Your task to perform on an android device: Go to privacy settings Image 0: 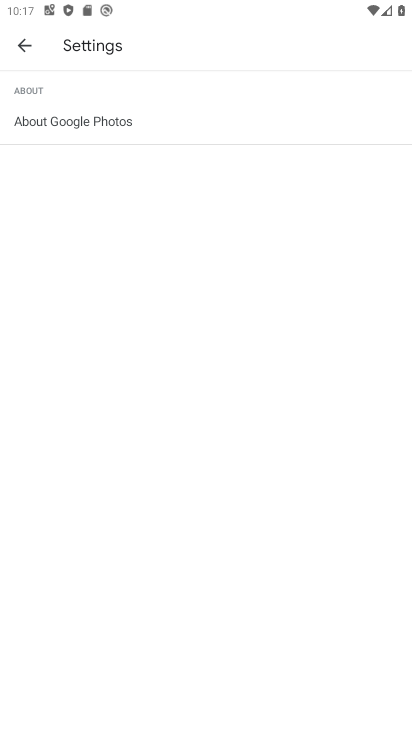
Step 0: press home button
Your task to perform on an android device: Go to privacy settings Image 1: 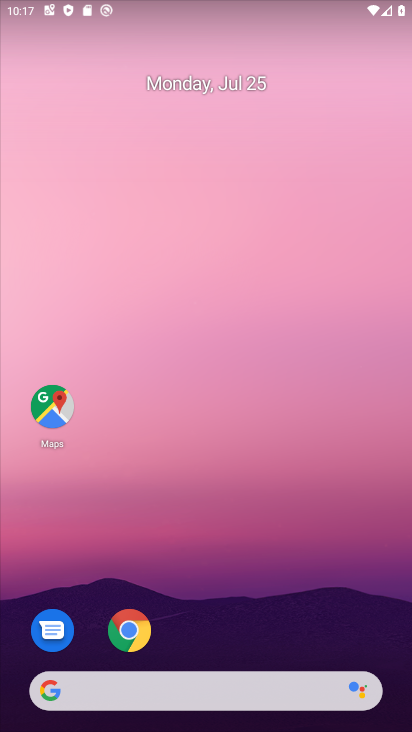
Step 1: drag from (353, 620) to (345, 104)
Your task to perform on an android device: Go to privacy settings Image 2: 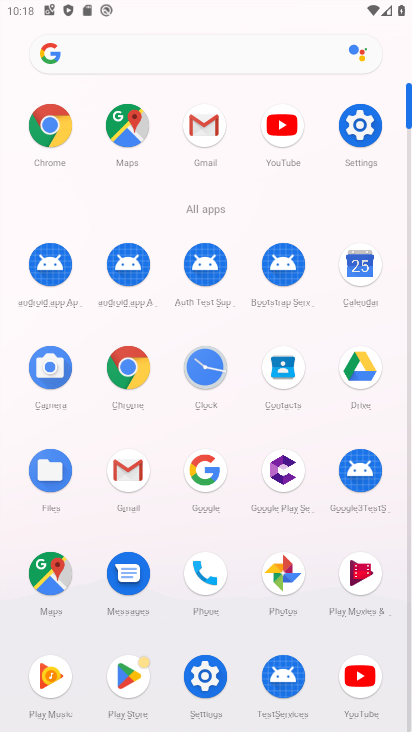
Step 2: click (366, 143)
Your task to perform on an android device: Go to privacy settings Image 3: 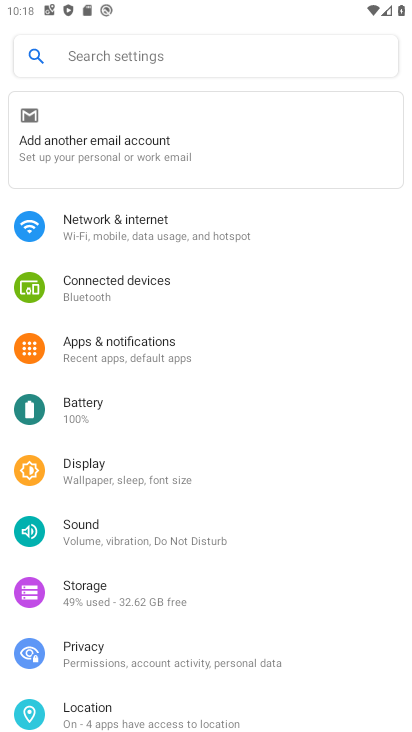
Step 3: drag from (335, 589) to (311, 356)
Your task to perform on an android device: Go to privacy settings Image 4: 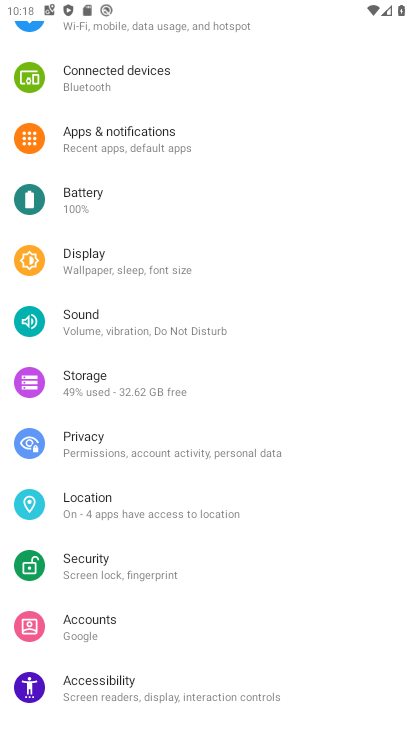
Step 4: drag from (301, 570) to (306, 462)
Your task to perform on an android device: Go to privacy settings Image 5: 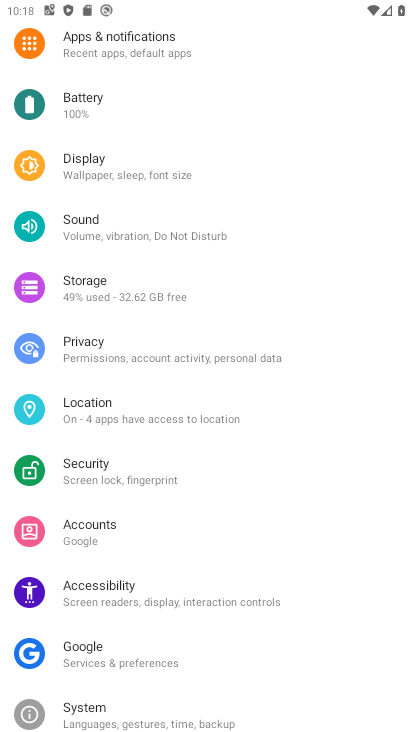
Step 5: drag from (349, 531) to (339, 381)
Your task to perform on an android device: Go to privacy settings Image 6: 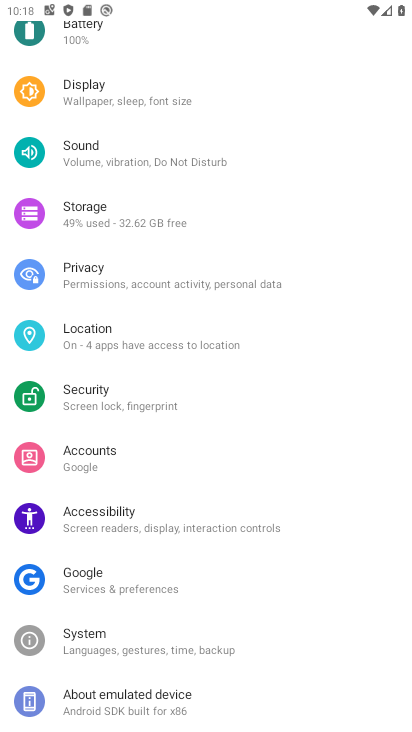
Step 6: drag from (324, 471) to (310, 365)
Your task to perform on an android device: Go to privacy settings Image 7: 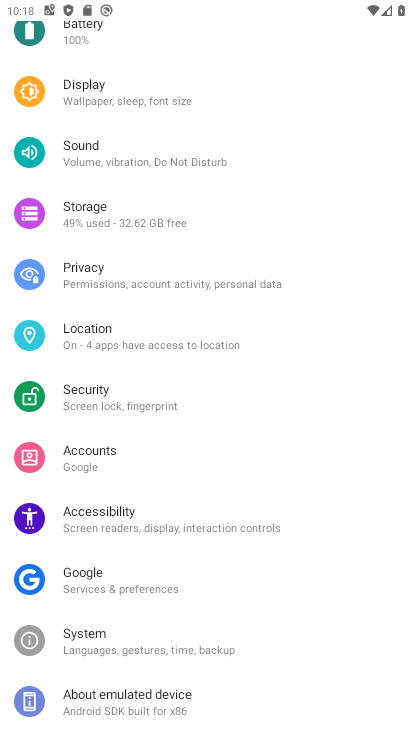
Step 7: drag from (320, 371) to (313, 450)
Your task to perform on an android device: Go to privacy settings Image 8: 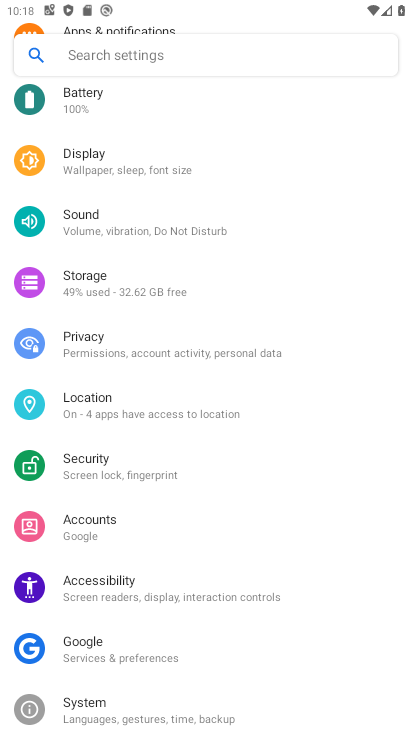
Step 8: drag from (312, 285) to (321, 476)
Your task to perform on an android device: Go to privacy settings Image 9: 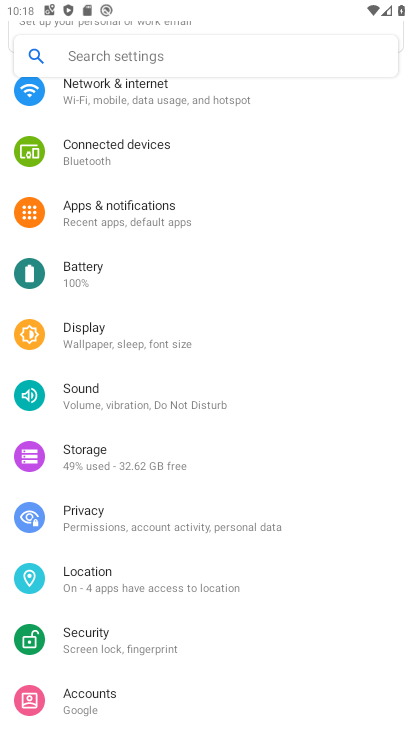
Step 9: drag from (324, 326) to (329, 450)
Your task to perform on an android device: Go to privacy settings Image 10: 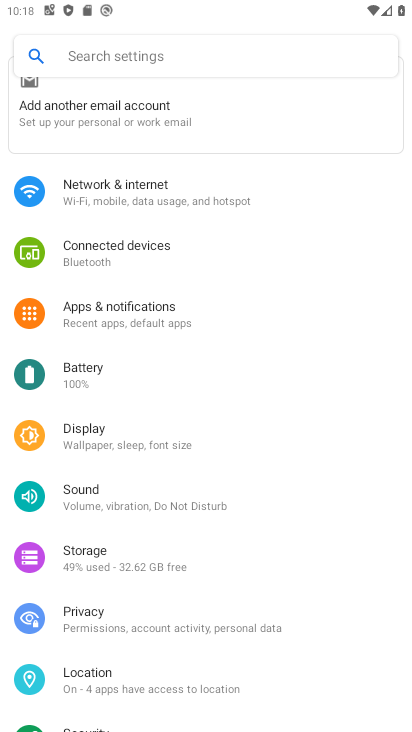
Step 10: click (293, 626)
Your task to perform on an android device: Go to privacy settings Image 11: 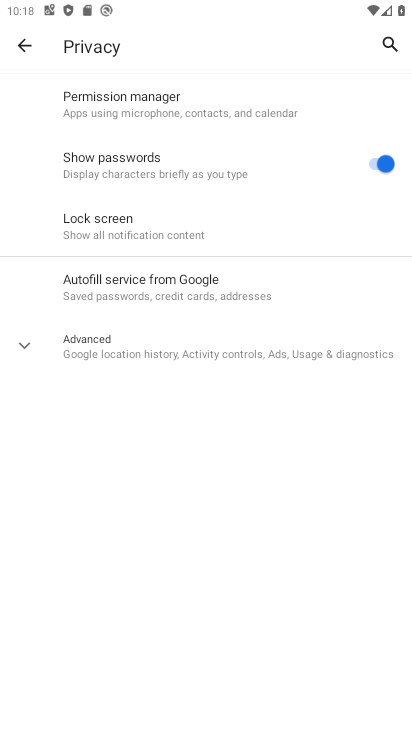
Step 11: task complete